Your task to perform on an android device: open a bookmark in the chrome app Image 0: 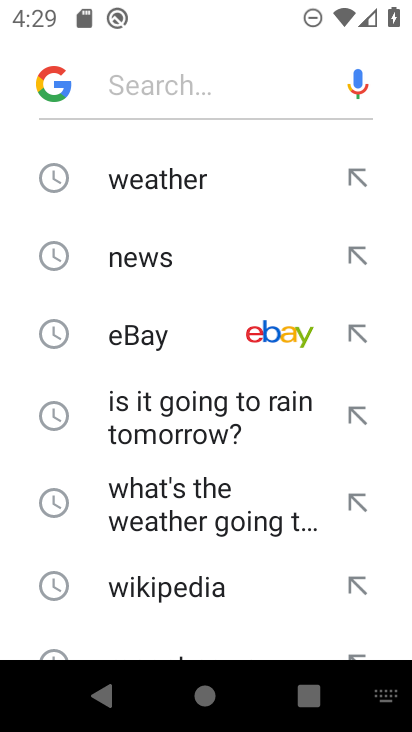
Step 0: press home button
Your task to perform on an android device: open a bookmark in the chrome app Image 1: 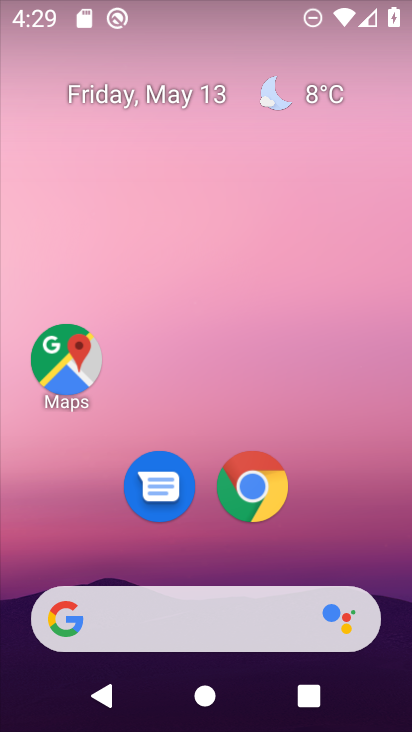
Step 1: click (271, 506)
Your task to perform on an android device: open a bookmark in the chrome app Image 2: 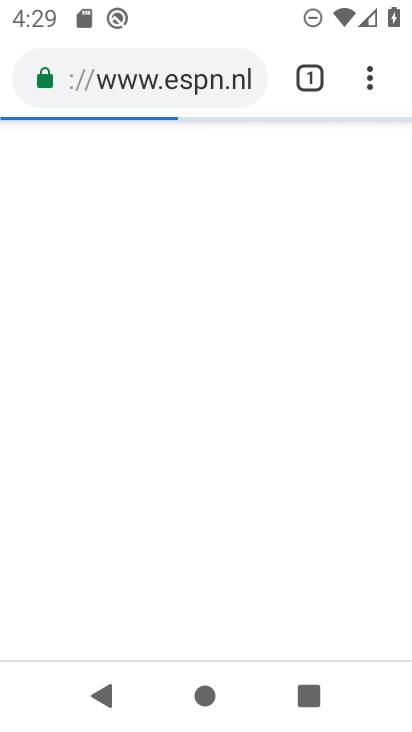
Step 2: click (367, 96)
Your task to perform on an android device: open a bookmark in the chrome app Image 3: 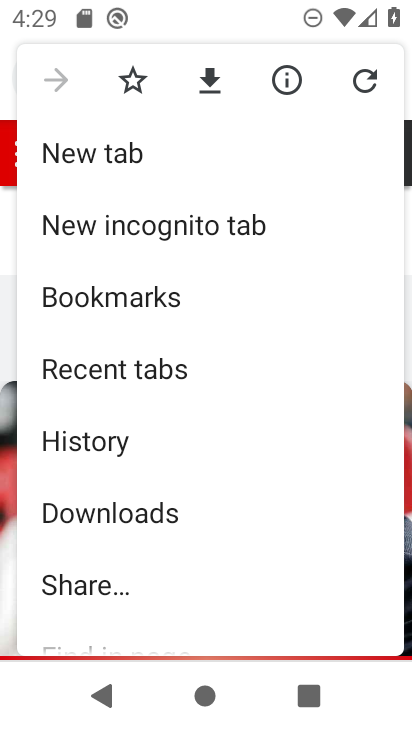
Step 3: click (208, 293)
Your task to perform on an android device: open a bookmark in the chrome app Image 4: 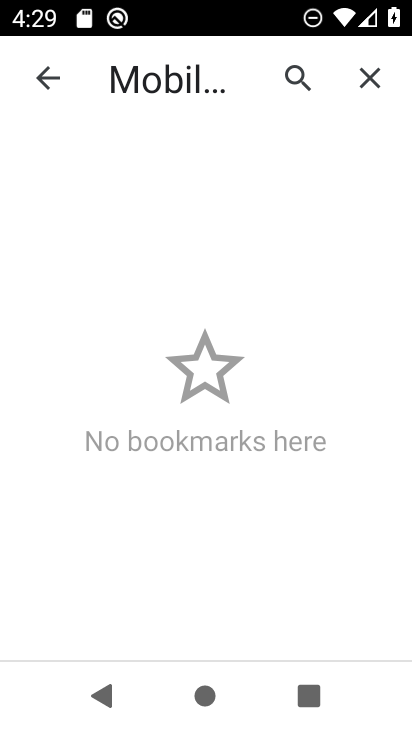
Step 4: click (369, 75)
Your task to perform on an android device: open a bookmark in the chrome app Image 5: 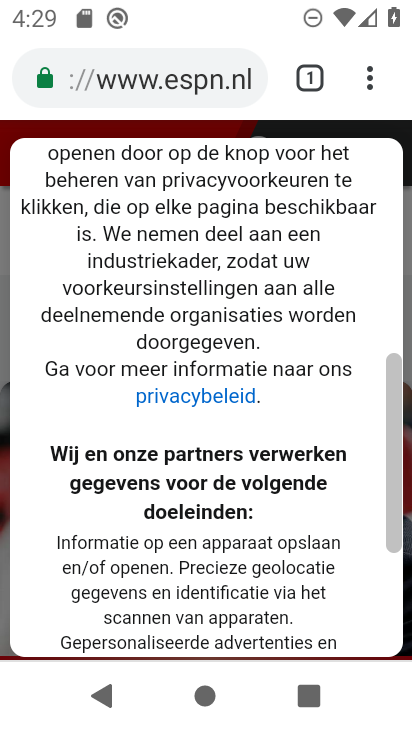
Step 5: click (316, 78)
Your task to perform on an android device: open a bookmark in the chrome app Image 6: 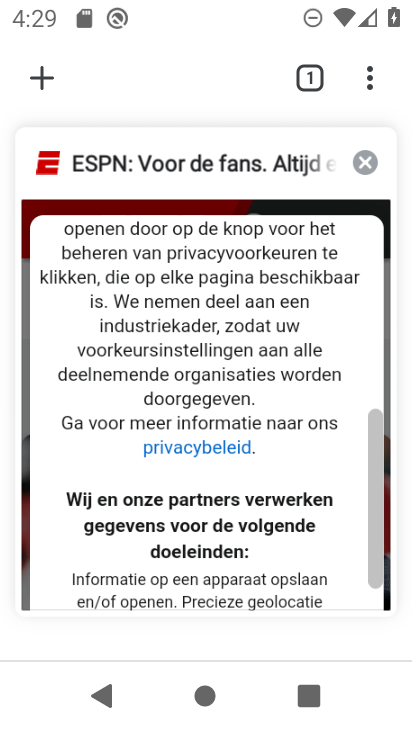
Step 6: click (55, 71)
Your task to perform on an android device: open a bookmark in the chrome app Image 7: 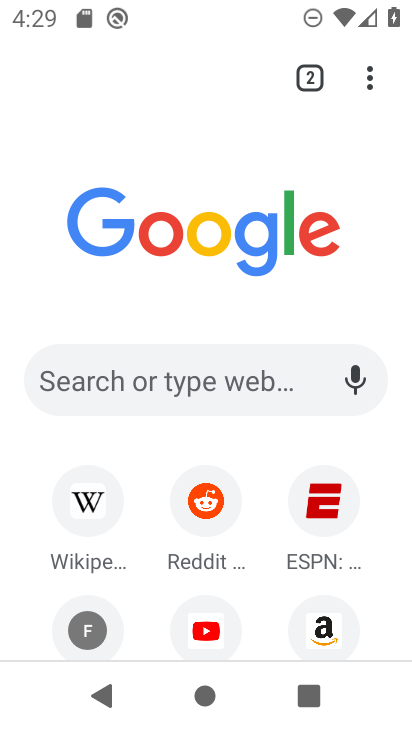
Step 7: click (205, 491)
Your task to perform on an android device: open a bookmark in the chrome app Image 8: 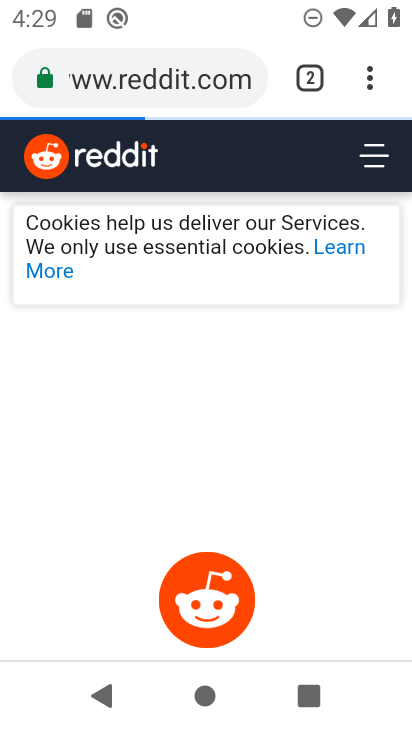
Step 8: task complete